Your task to perform on an android device: Find coffee shops on Maps Image 0: 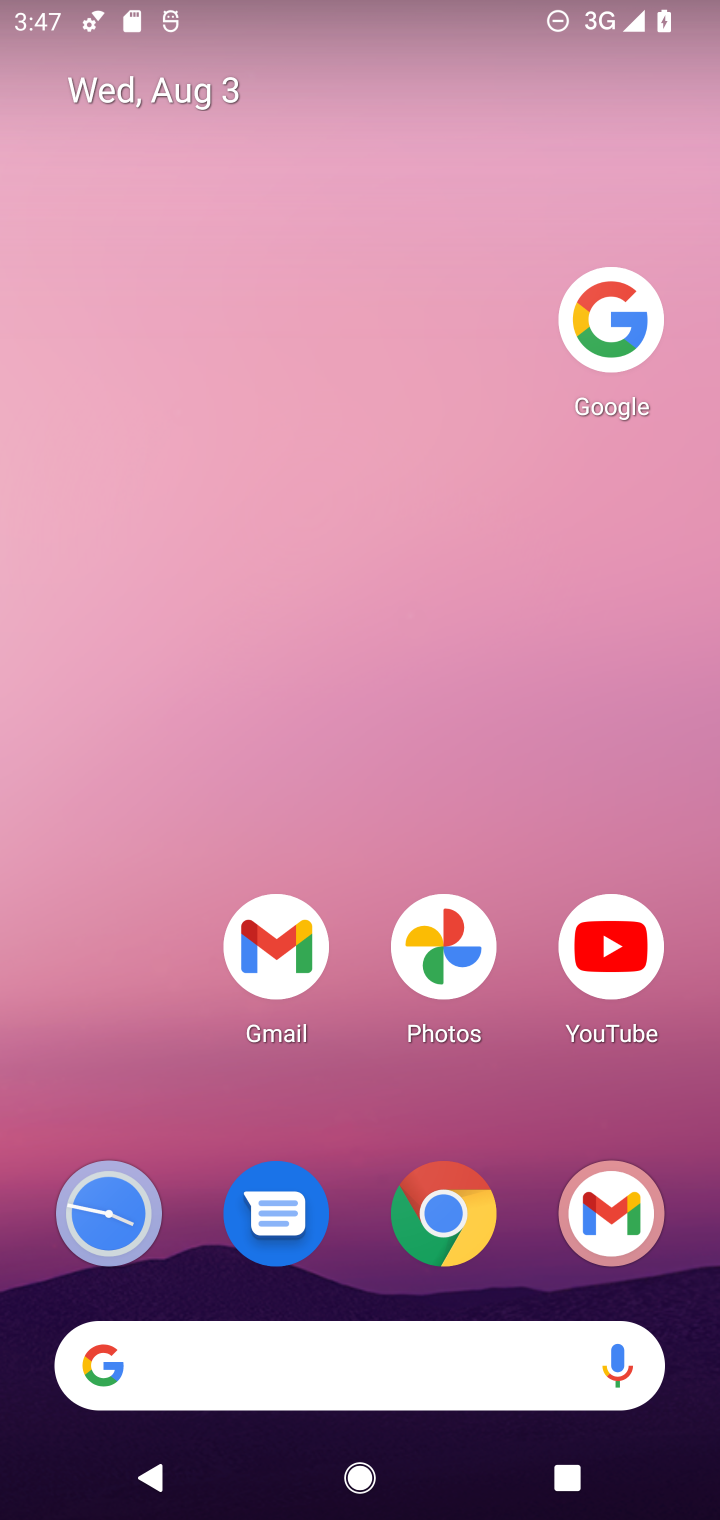
Step 0: drag from (349, 1213) to (281, 156)
Your task to perform on an android device: Find coffee shops on Maps Image 1: 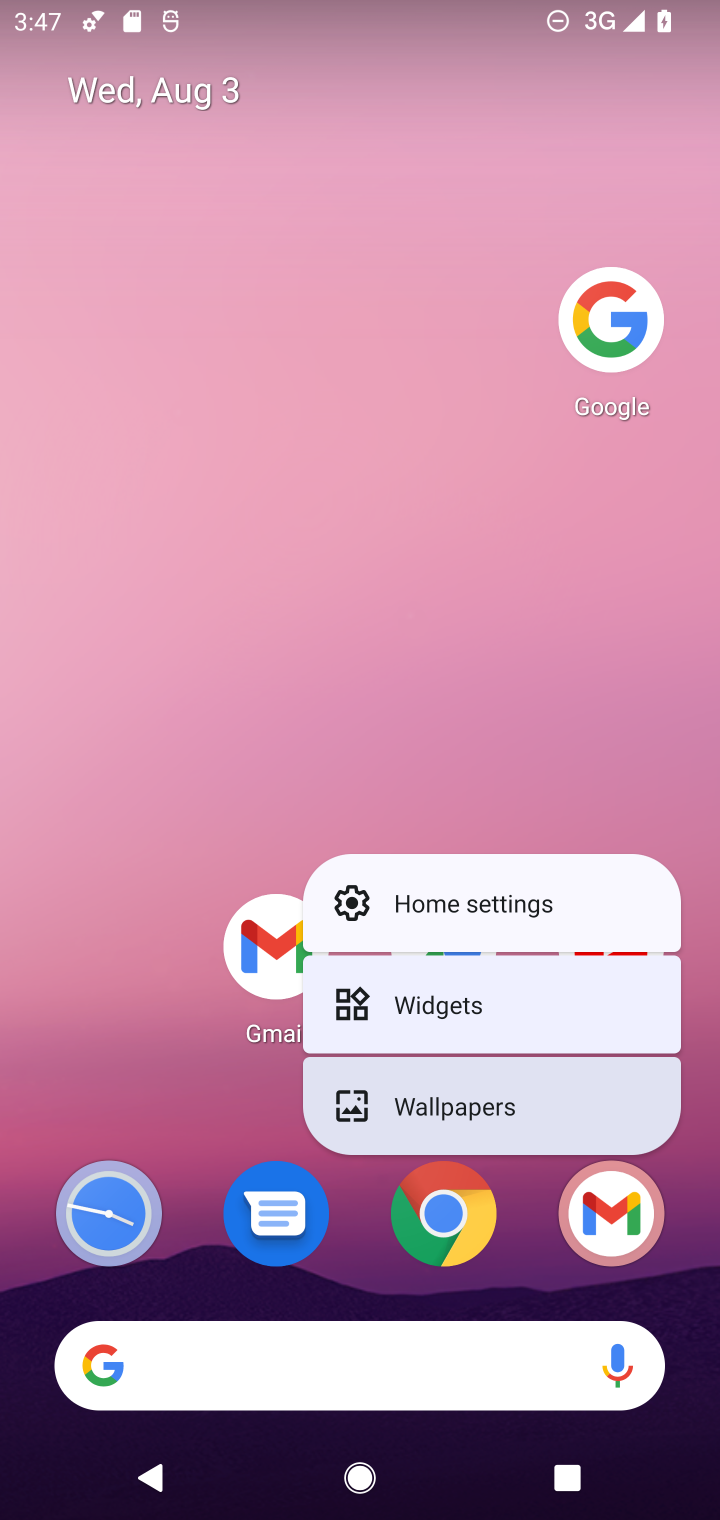
Step 1: click (183, 725)
Your task to perform on an android device: Find coffee shops on Maps Image 2: 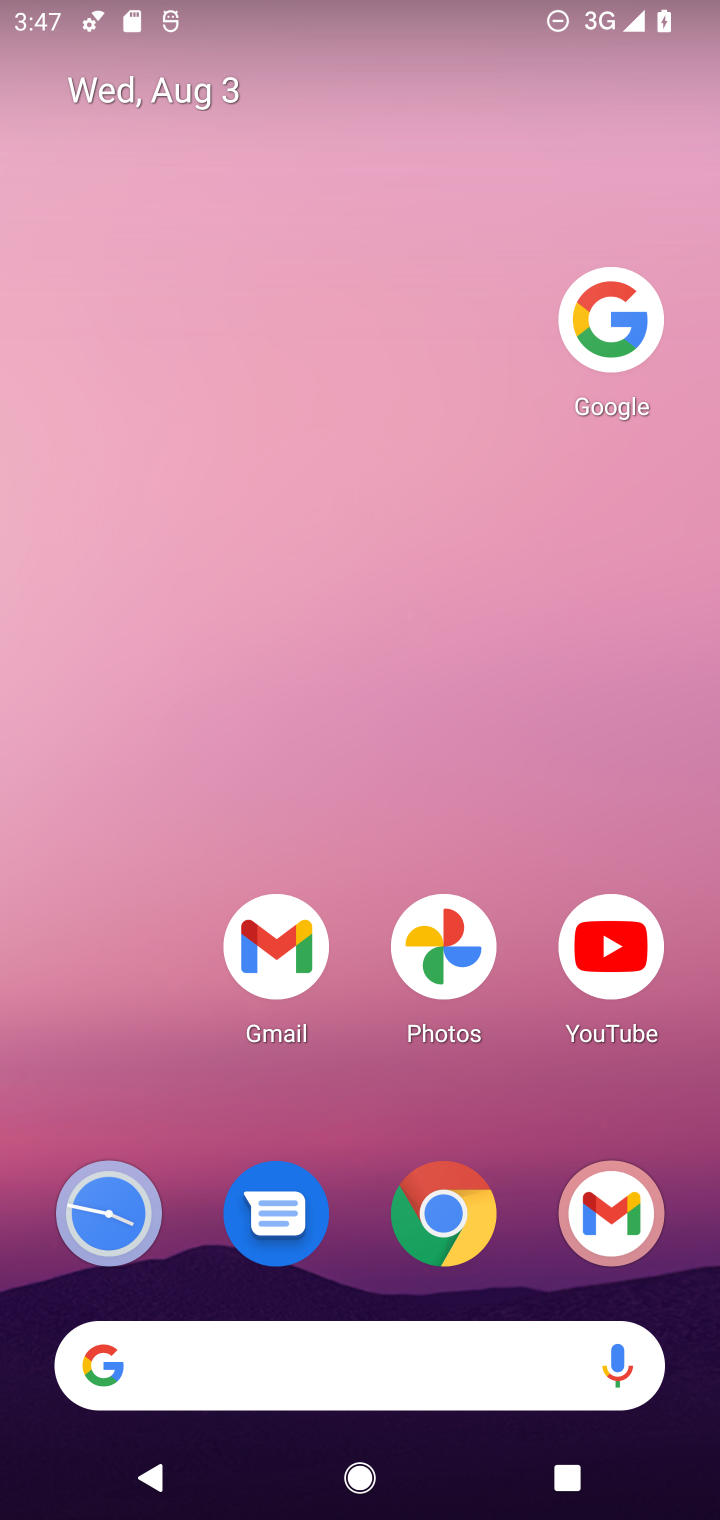
Step 2: drag from (319, 1282) to (458, 274)
Your task to perform on an android device: Find coffee shops on Maps Image 3: 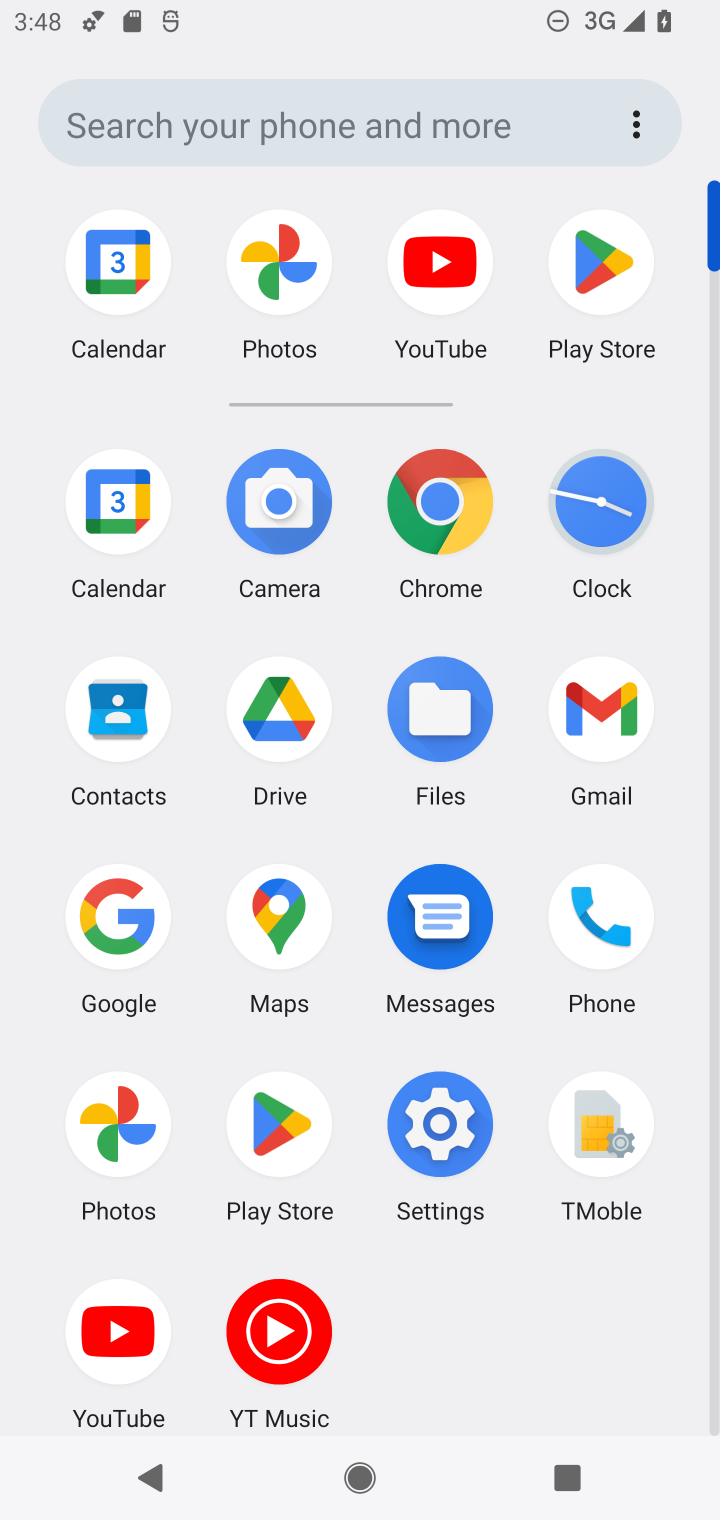
Step 3: click (289, 908)
Your task to perform on an android device: Find coffee shops on Maps Image 4: 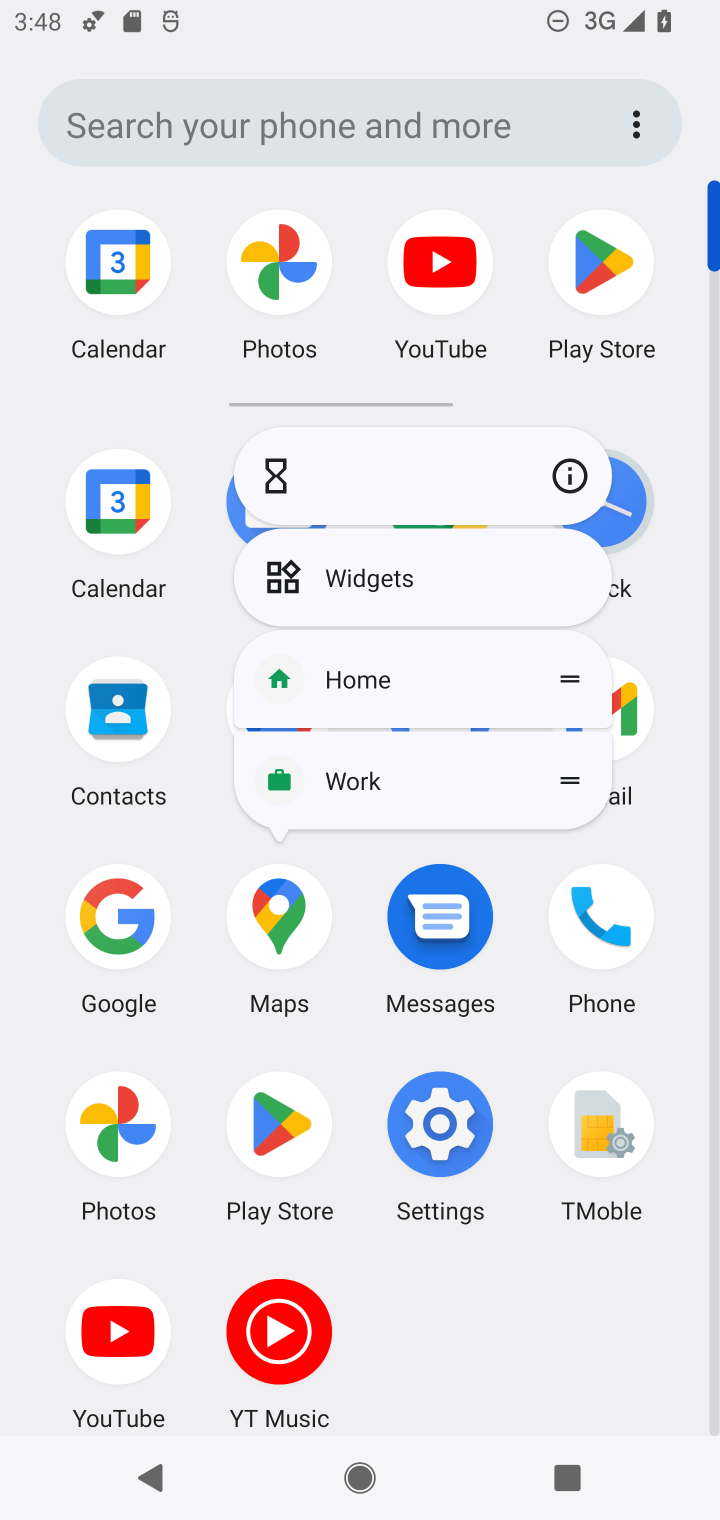
Step 4: click (289, 908)
Your task to perform on an android device: Find coffee shops on Maps Image 5: 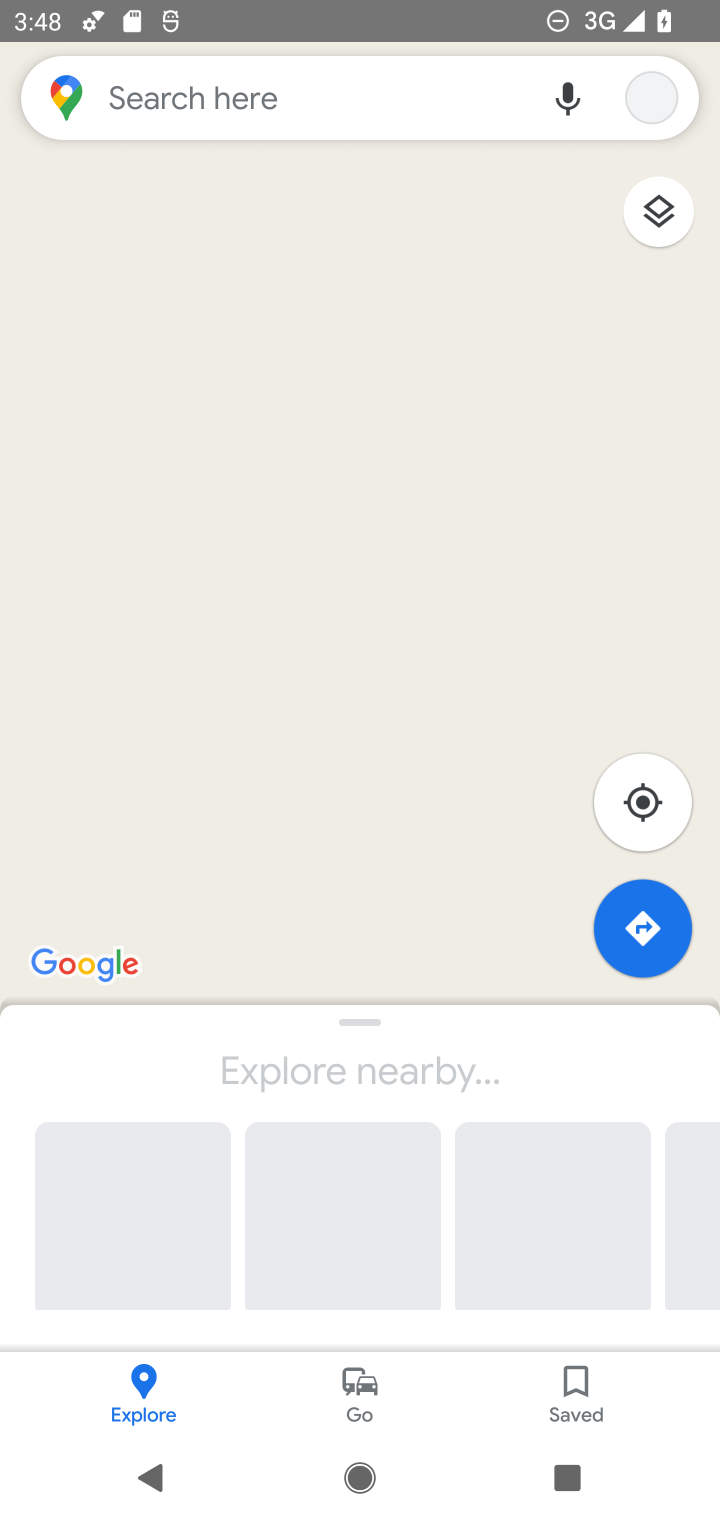
Step 5: click (231, 85)
Your task to perform on an android device: Find coffee shops on Maps Image 6: 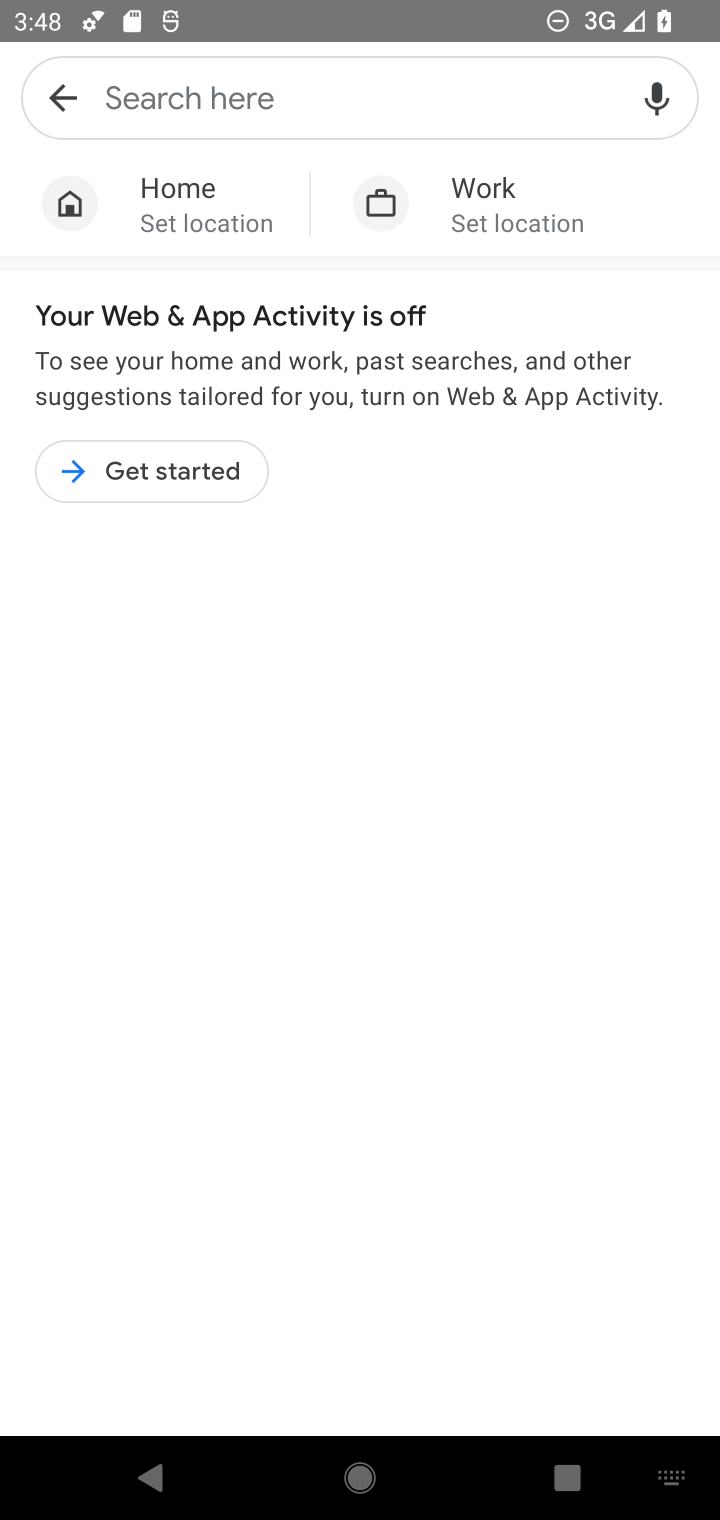
Step 6: click (231, 85)
Your task to perform on an android device: Find coffee shops on Maps Image 7: 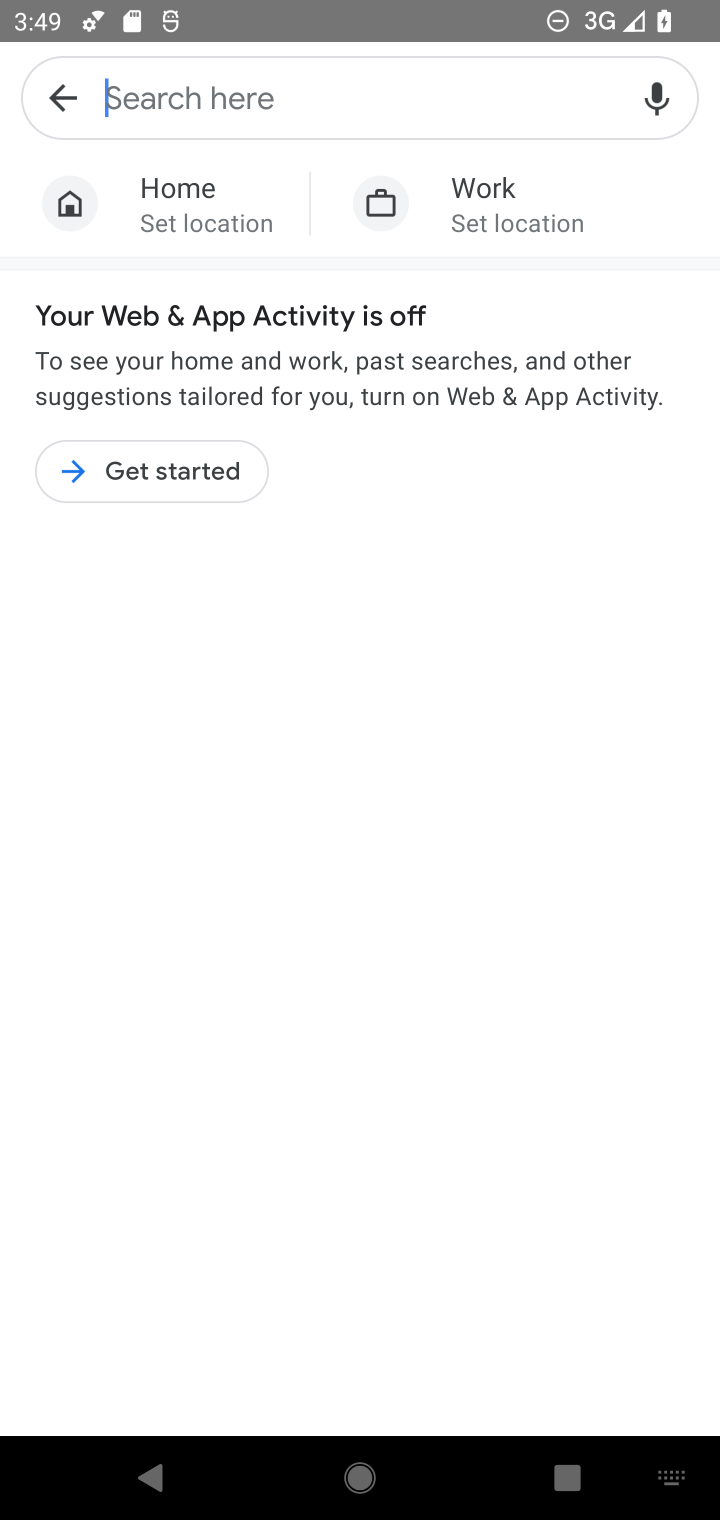
Step 7: type "coffee shop "
Your task to perform on an android device: Find coffee shops on Maps Image 8: 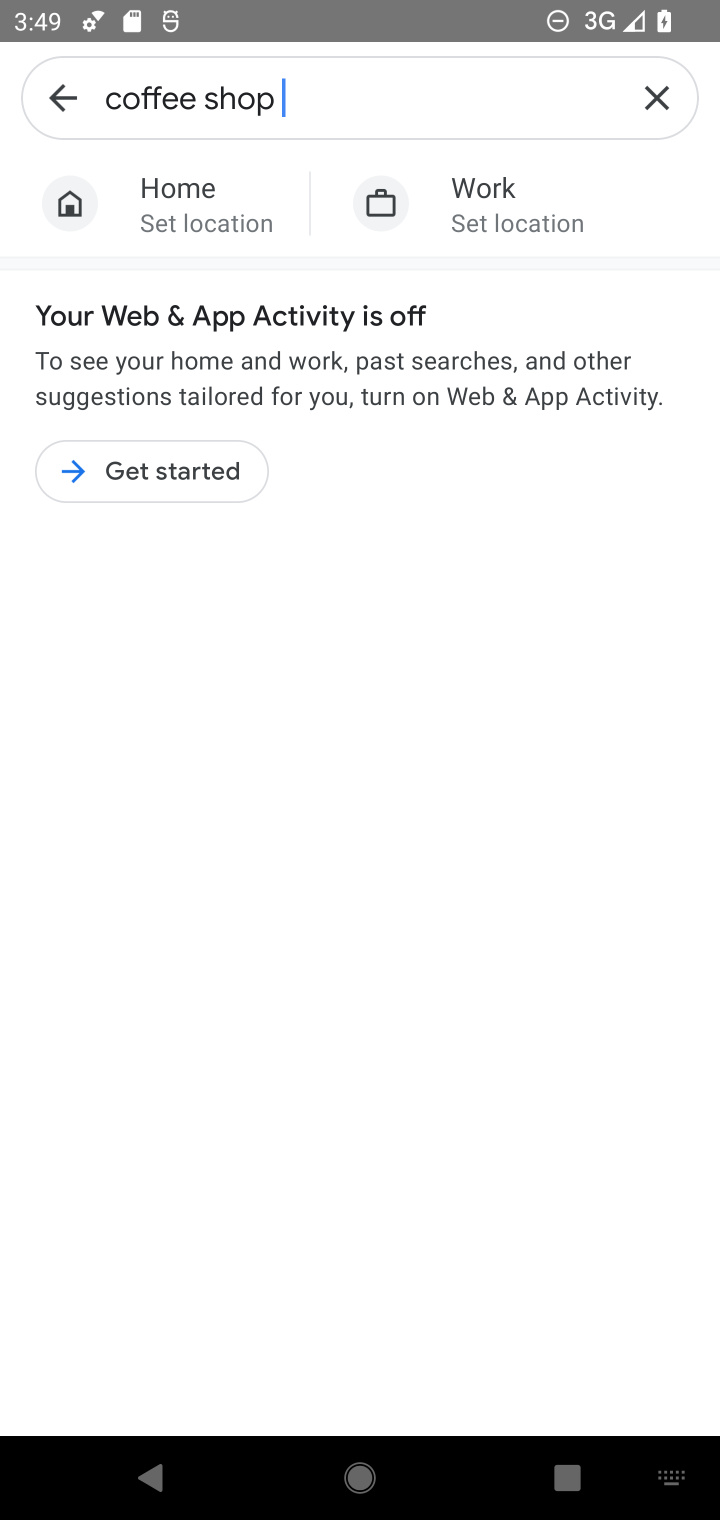
Step 8: click (339, 89)
Your task to perform on an android device: Find coffee shops on Maps Image 9: 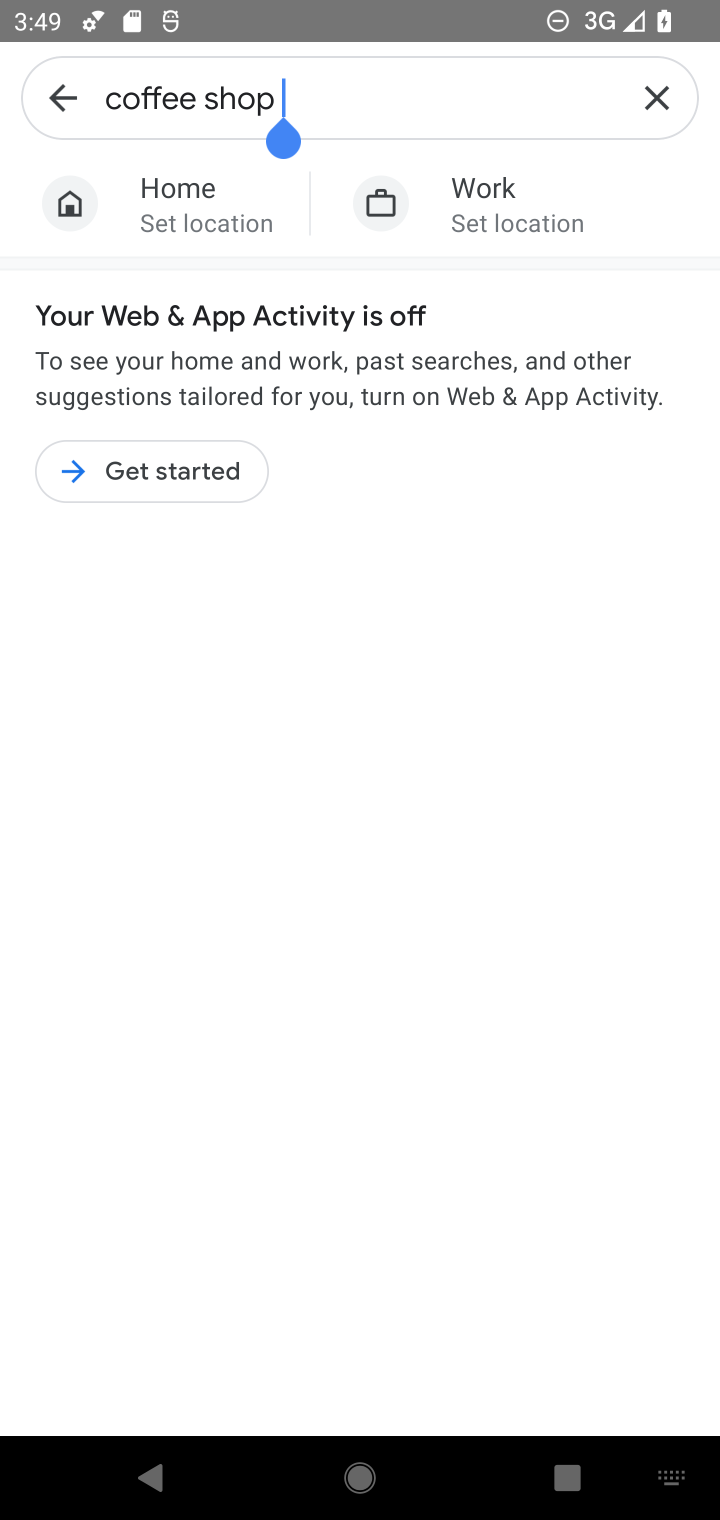
Step 9: click (238, 89)
Your task to perform on an android device: Find coffee shops on Maps Image 10: 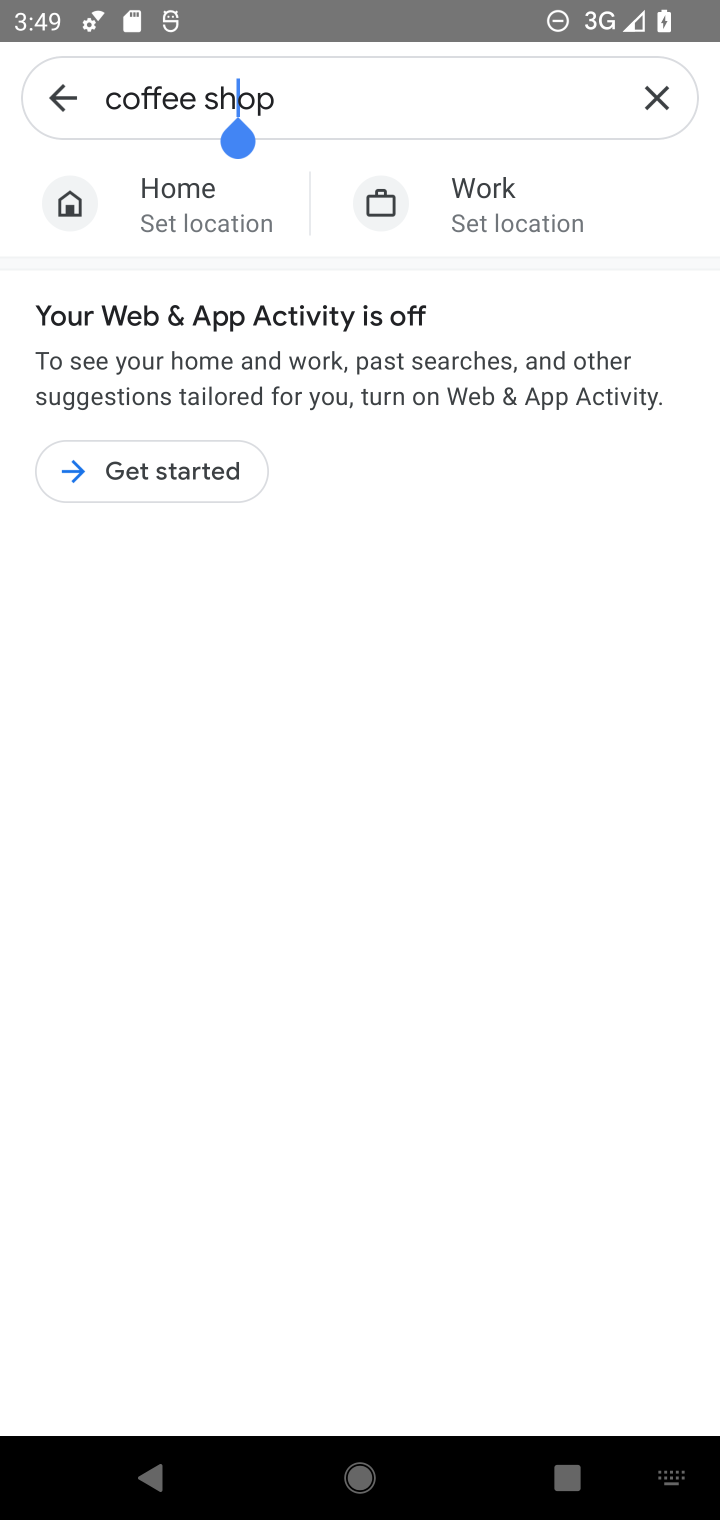
Step 10: click (349, 109)
Your task to perform on an android device: Find coffee shops on Maps Image 11: 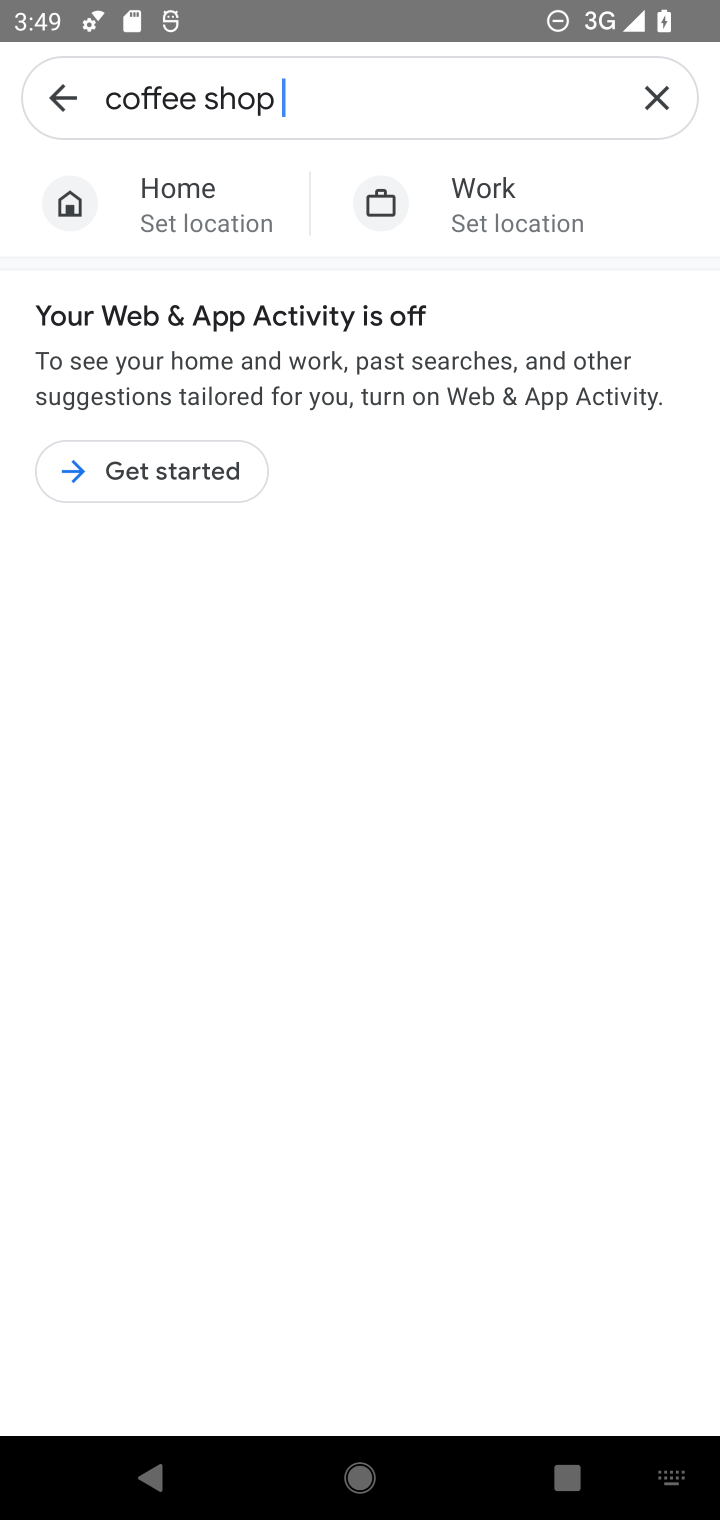
Step 11: click (657, 77)
Your task to perform on an android device: Find coffee shops on Maps Image 12: 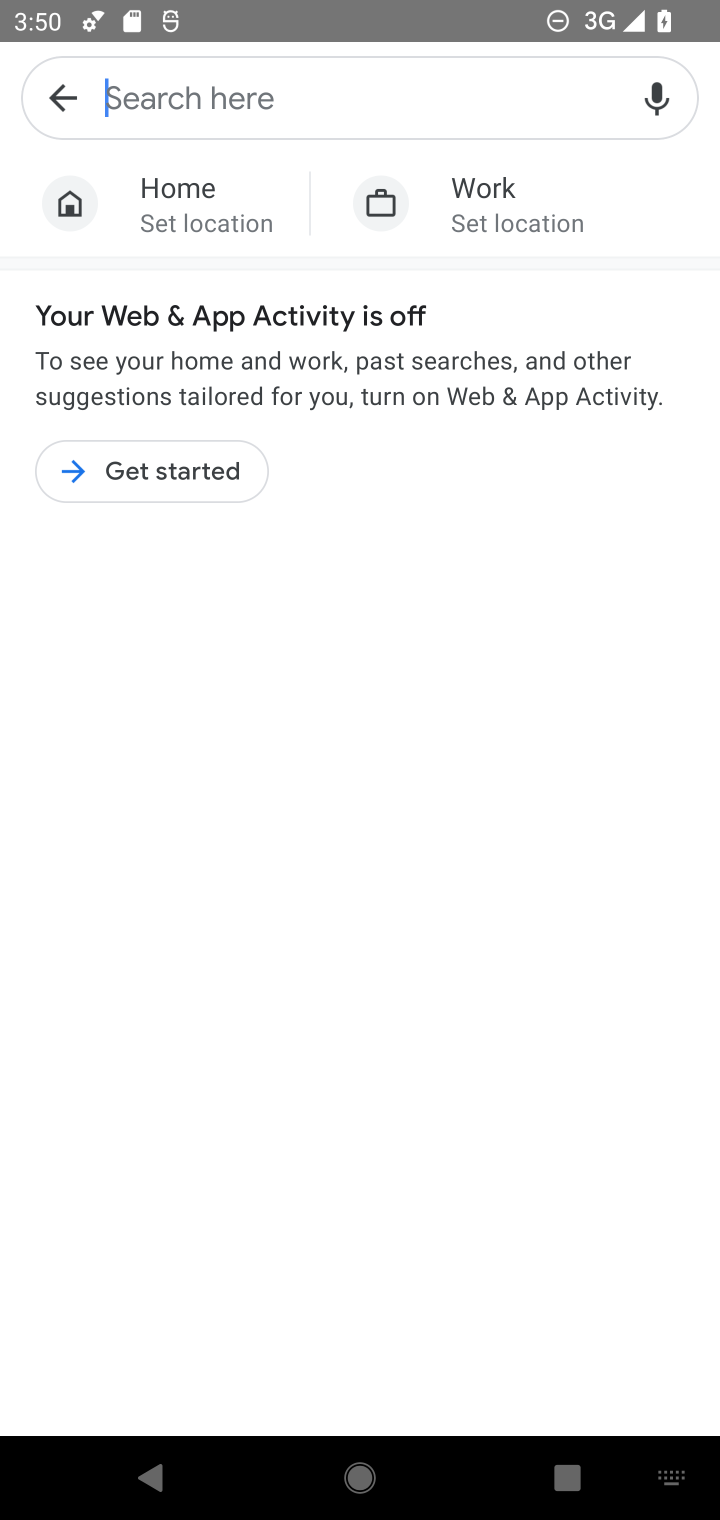
Step 12: click (341, 98)
Your task to perform on an android device: Find coffee shops on Maps Image 13: 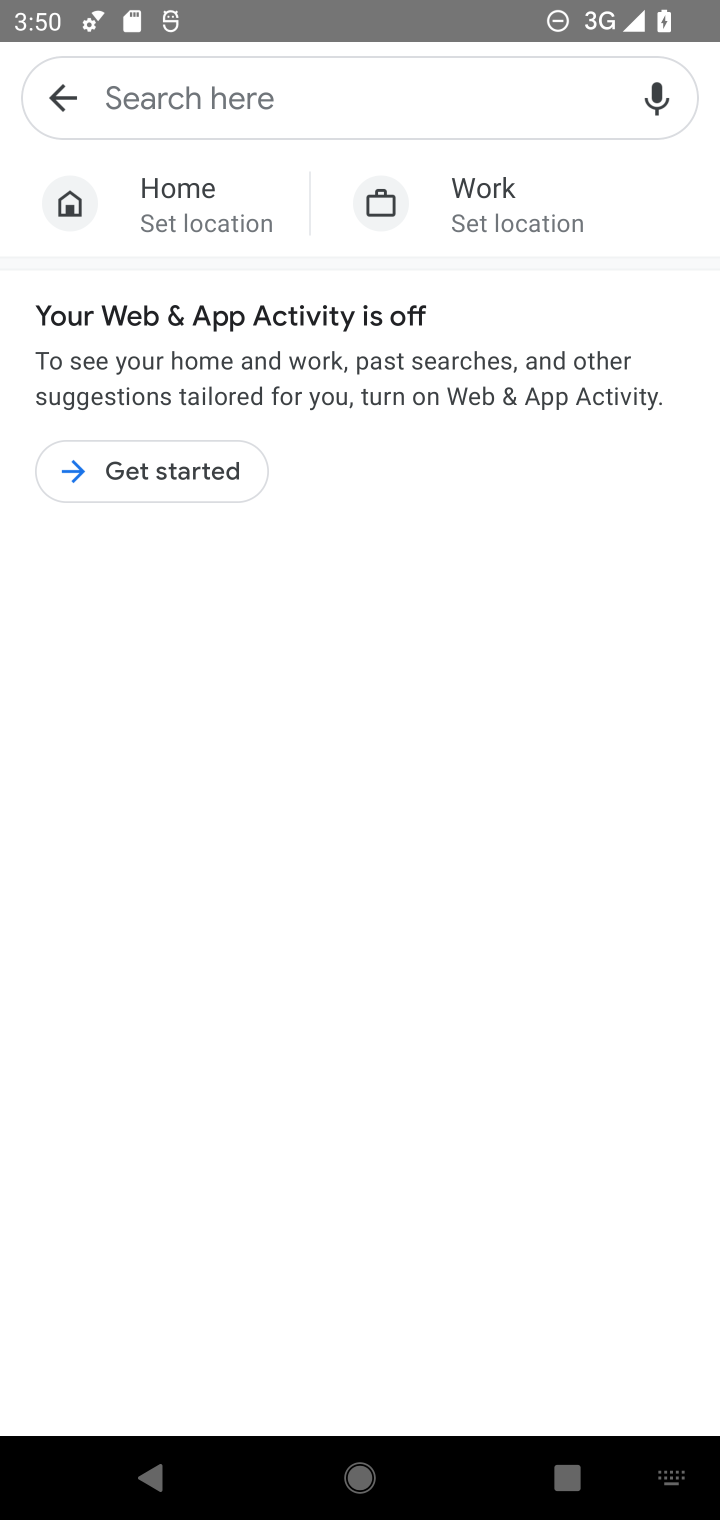
Step 13: type "coffee shops  "
Your task to perform on an android device: Find coffee shops on Maps Image 14: 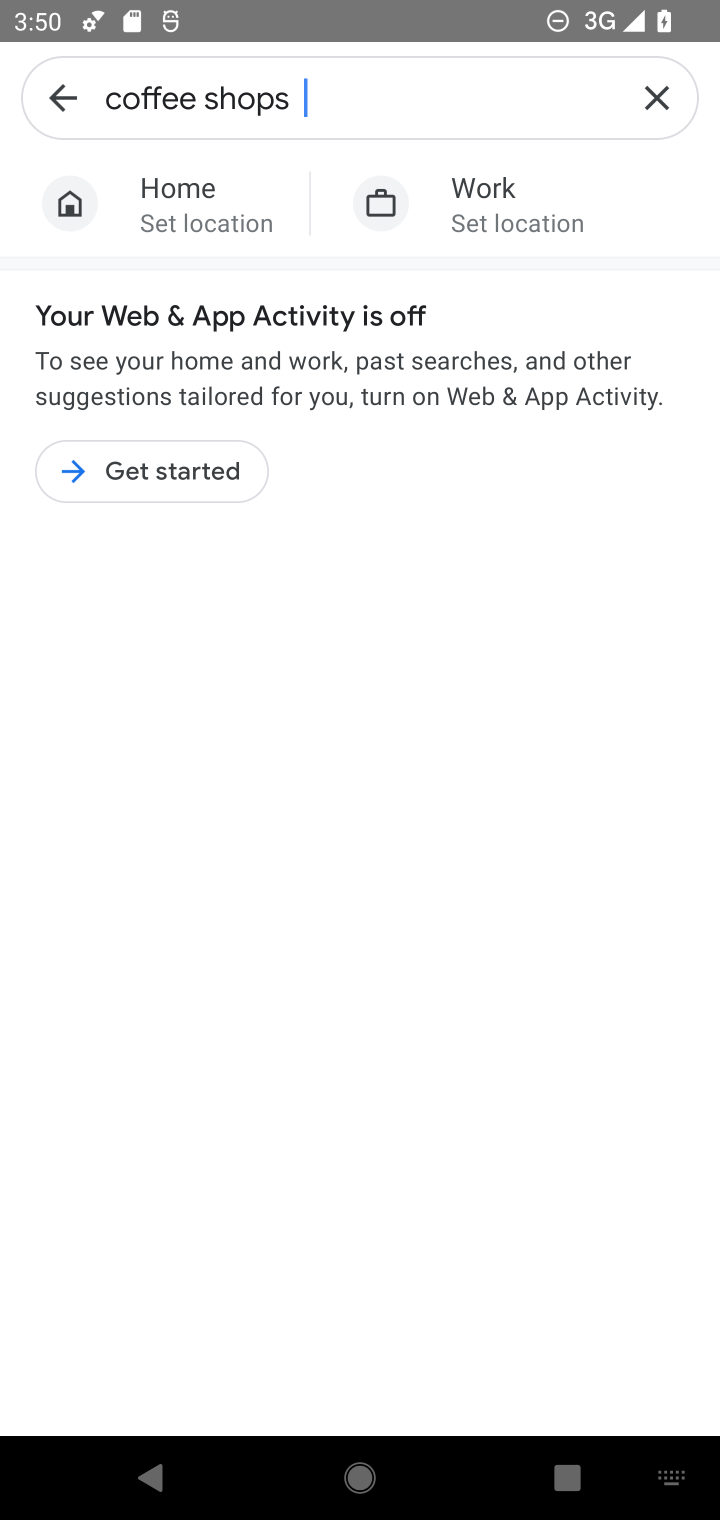
Step 14: click (193, 191)
Your task to perform on an android device: Find coffee shops on Maps Image 15: 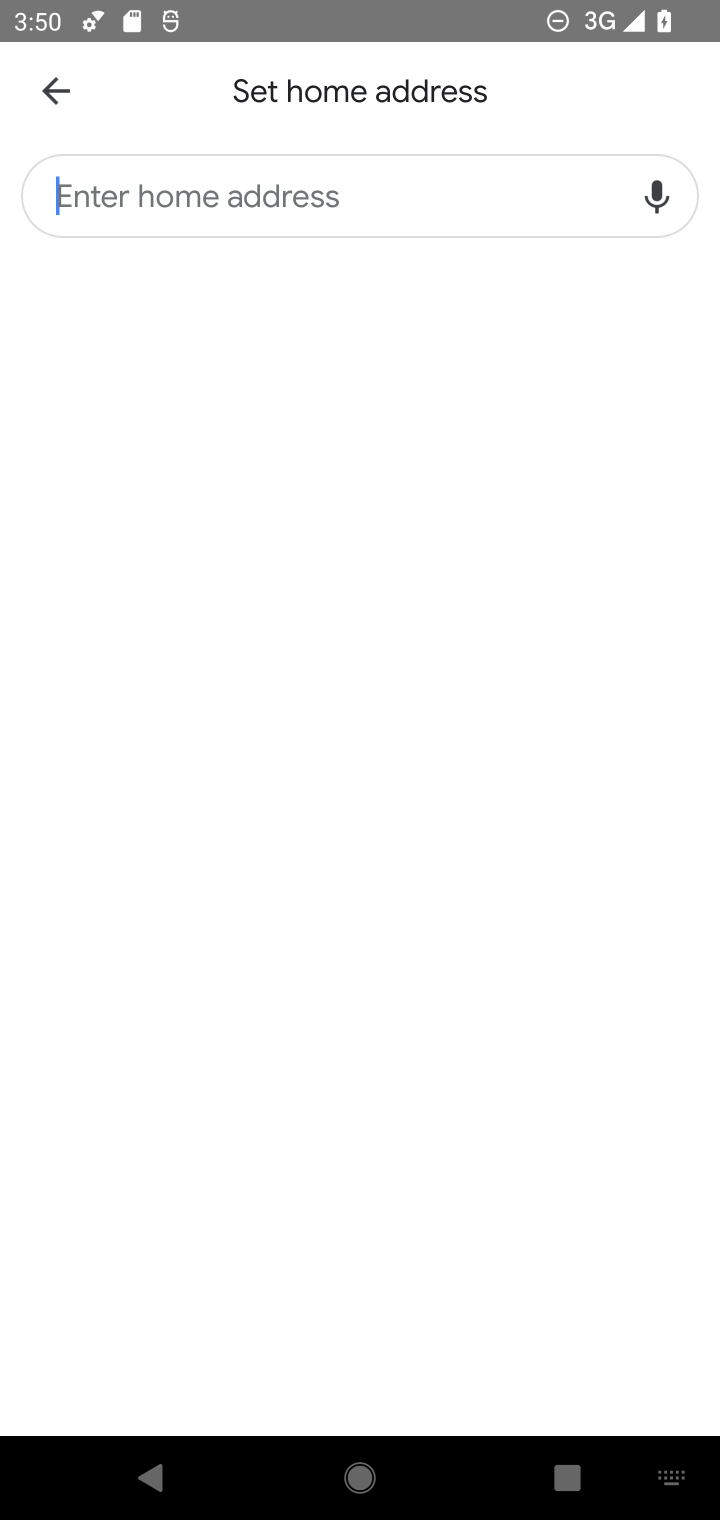
Step 15: click (219, 171)
Your task to perform on an android device: Find coffee shops on Maps Image 16: 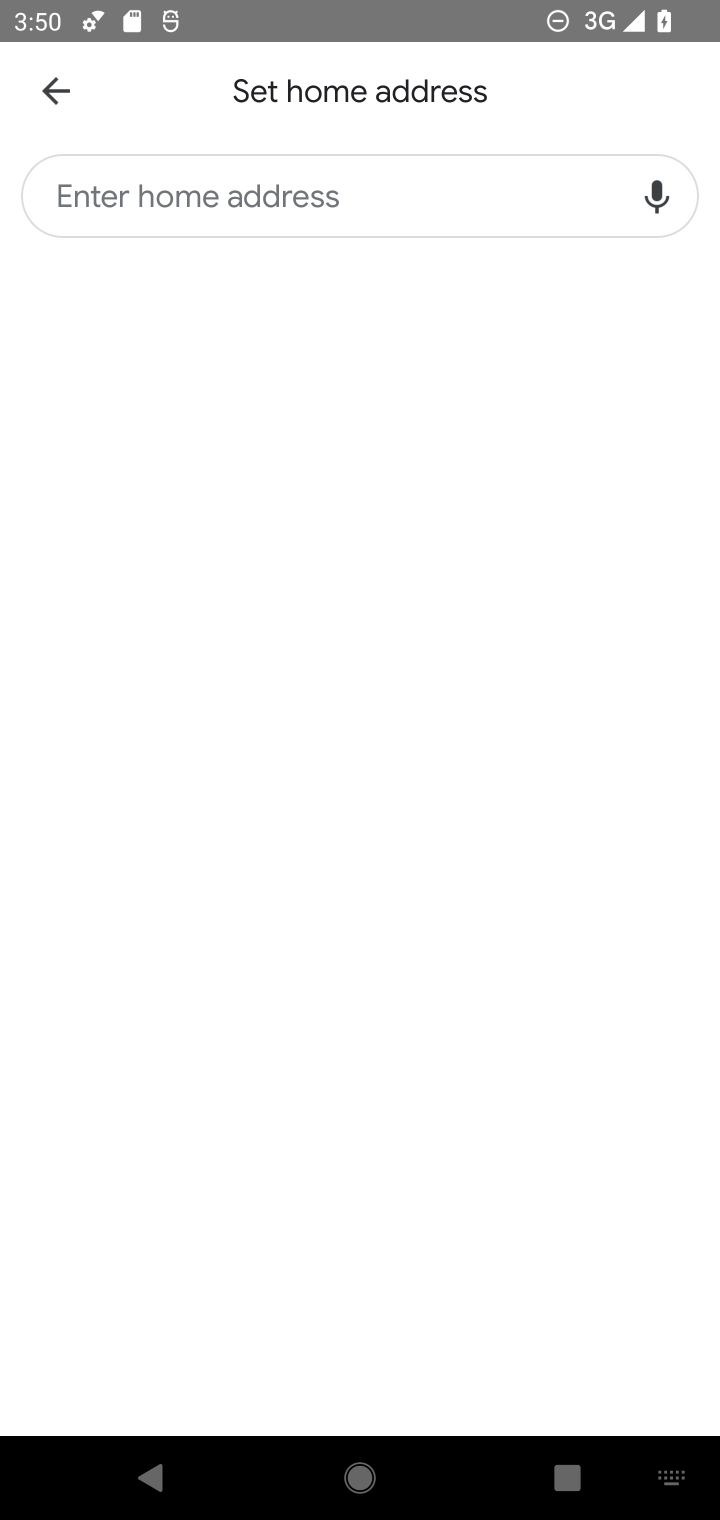
Step 16: task complete